Your task to perform on an android device: turn off picture-in-picture Image 0: 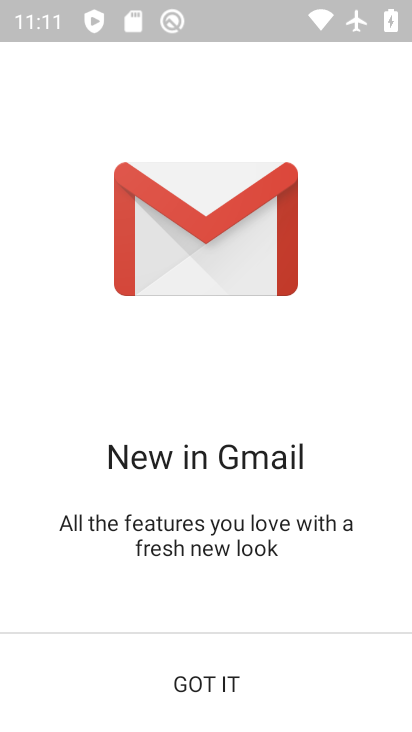
Step 0: press home button
Your task to perform on an android device: turn off picture-in-picture Image 1: 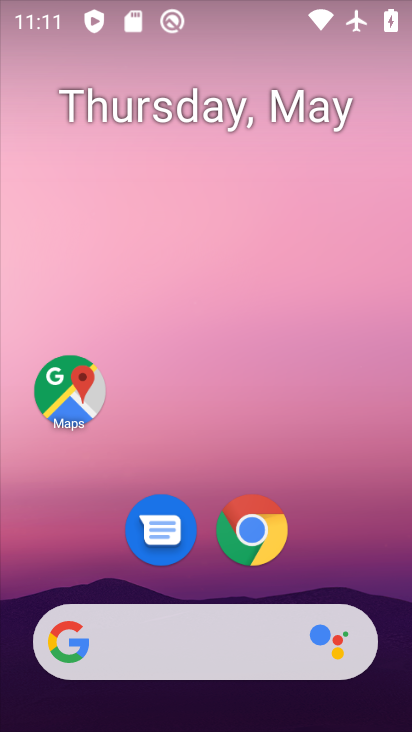
Step 1: click (269, 527)
Your task to perform on an android device: turn off picture-in-picture Image 2: 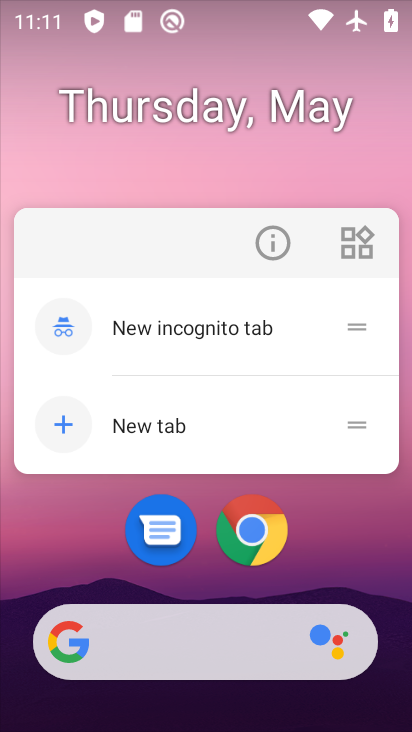
Step 2: click (269, 258)
Your task to perform on an android device: turn off picture-in-picture Image 3: 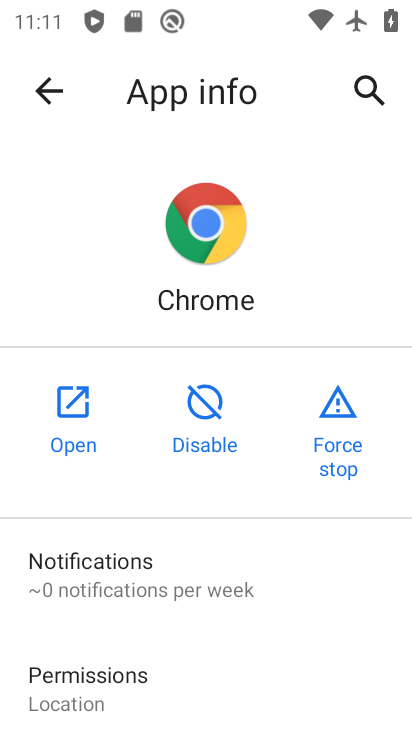
Step 3: drag from (214, 610) to (224, 178)
Your task to perform on an android device: turn off picture-in-picture Image 4: 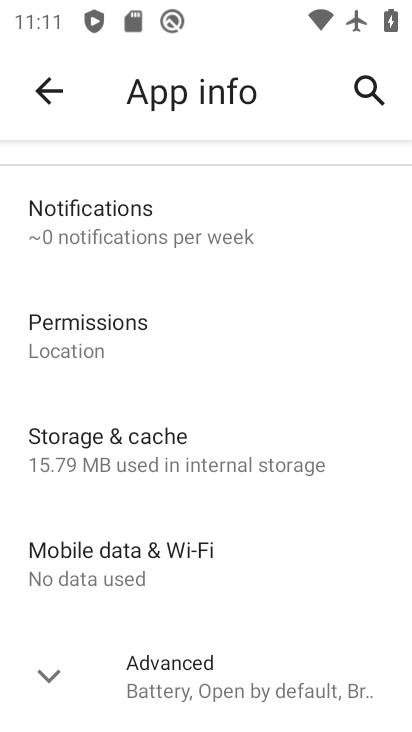
Step 4: click (220, 681)
Your task to perform on an android device: turn off picture-in-picture Image 5: 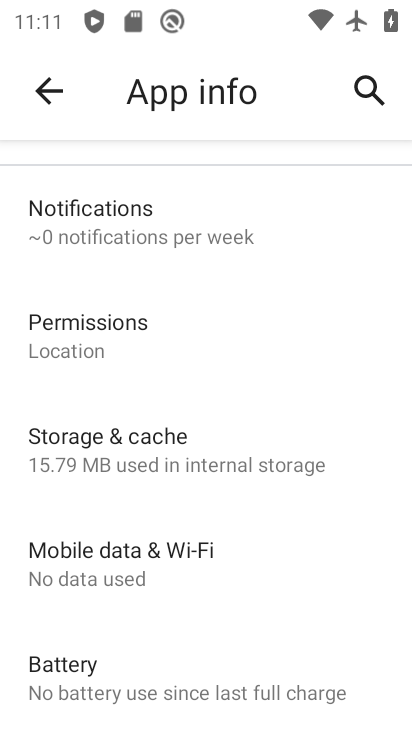
Step 5: drag from (204, 631) to (216, 251)
Your task to perform on an android device: turn off picture-in-picture Image 6: 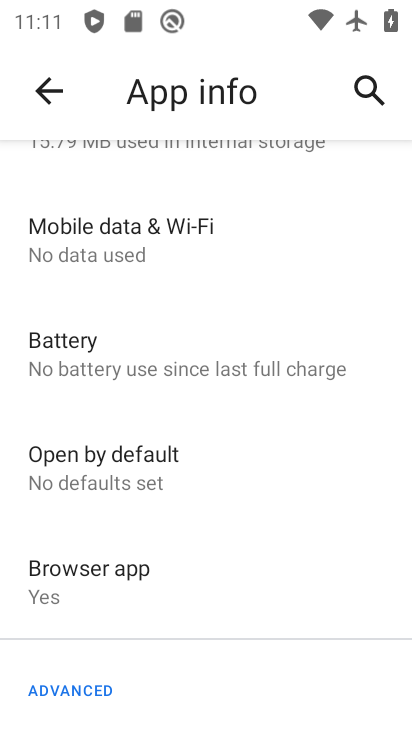
Step 6: drag from (230, 630) to (237, 336)
Your task to perform on an android device: turn off picture-in-picture Image 7: 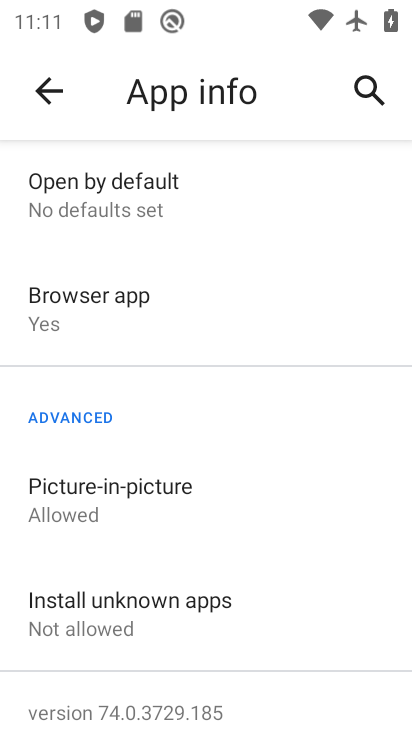
Step 7: click (132, 499)
Your task to perform on an android device: turn off picture-in-picture Image 8: 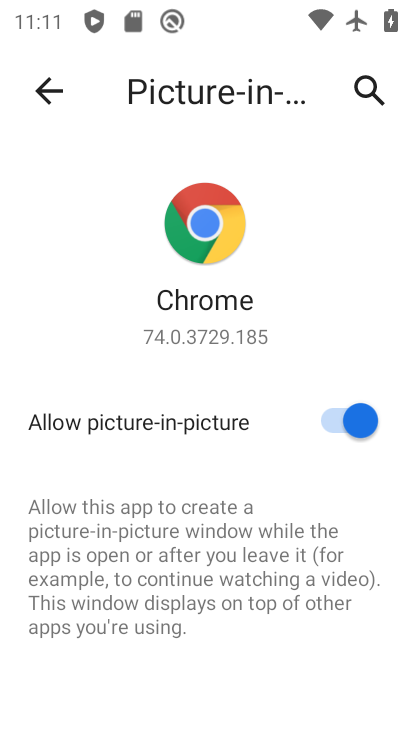
Step 8: click (326, 419)
Your task to perform on an android device: turn off picture-in-picture Image 9: 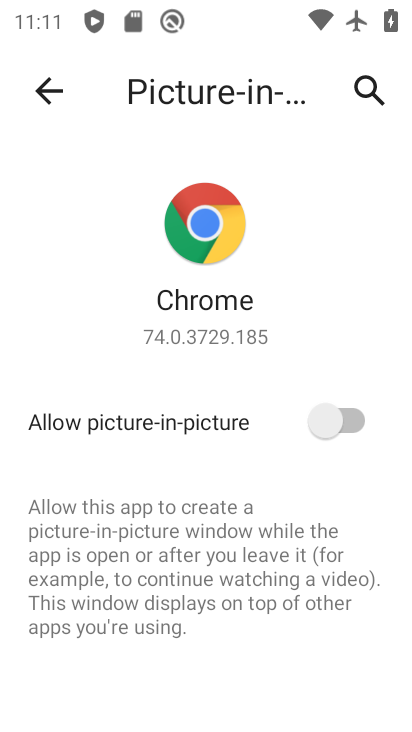
Step 9: task complete